Your task to perform on an android device: open app "Cash App" Image 0: 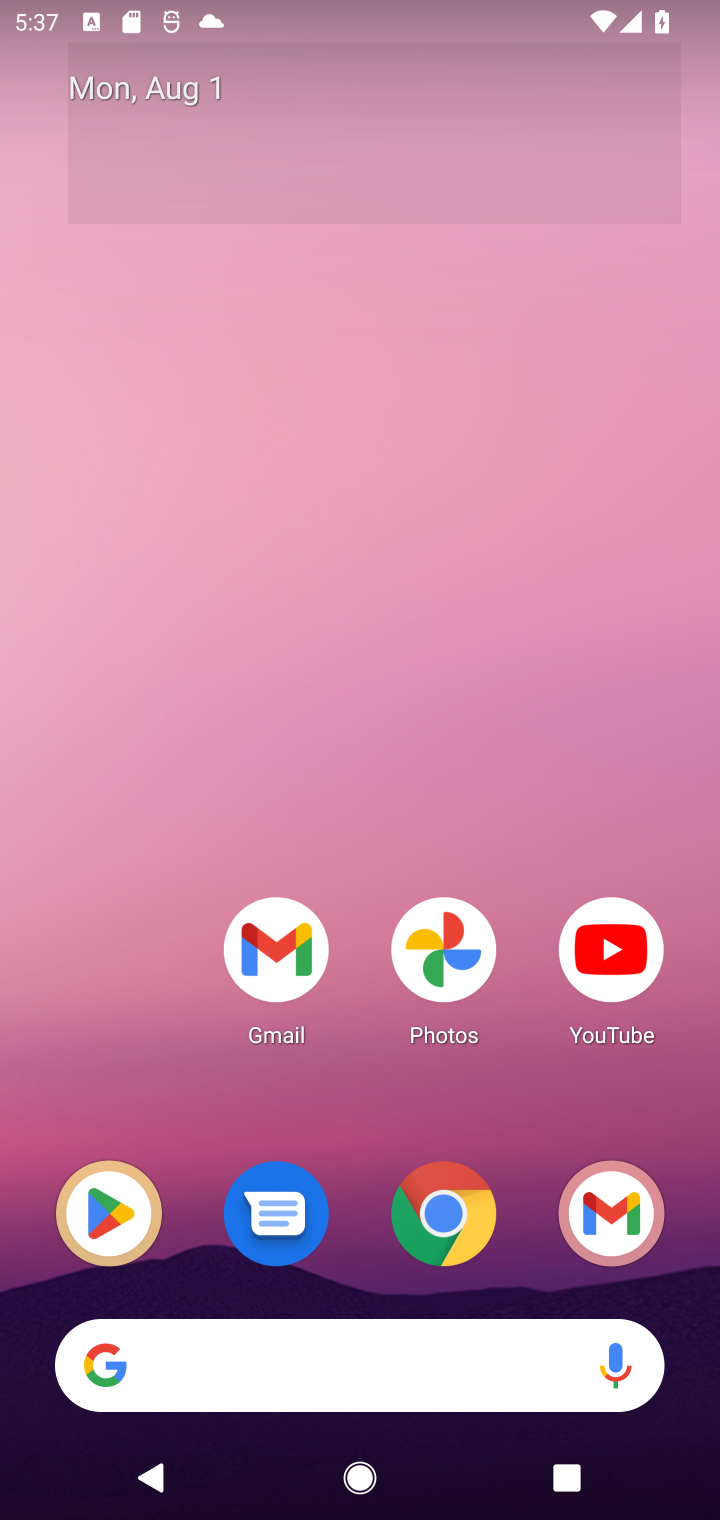
Step 0: press home button
Your task to perform on an android device: open app "Cash App" Image 1: 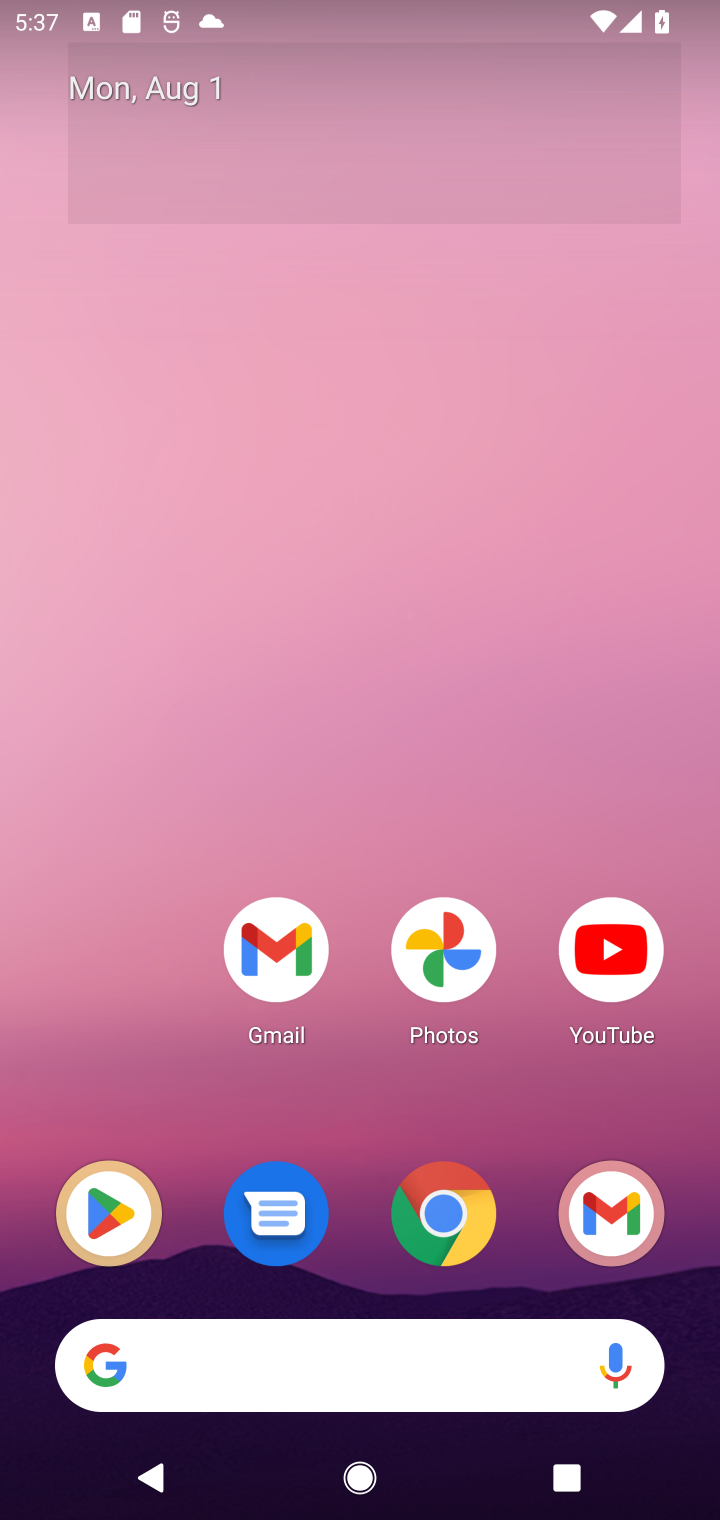
Step 1: drag from (519, 1044) to (566, 12)
Your task to perform on an android device: open app "Cash App" Image 2: 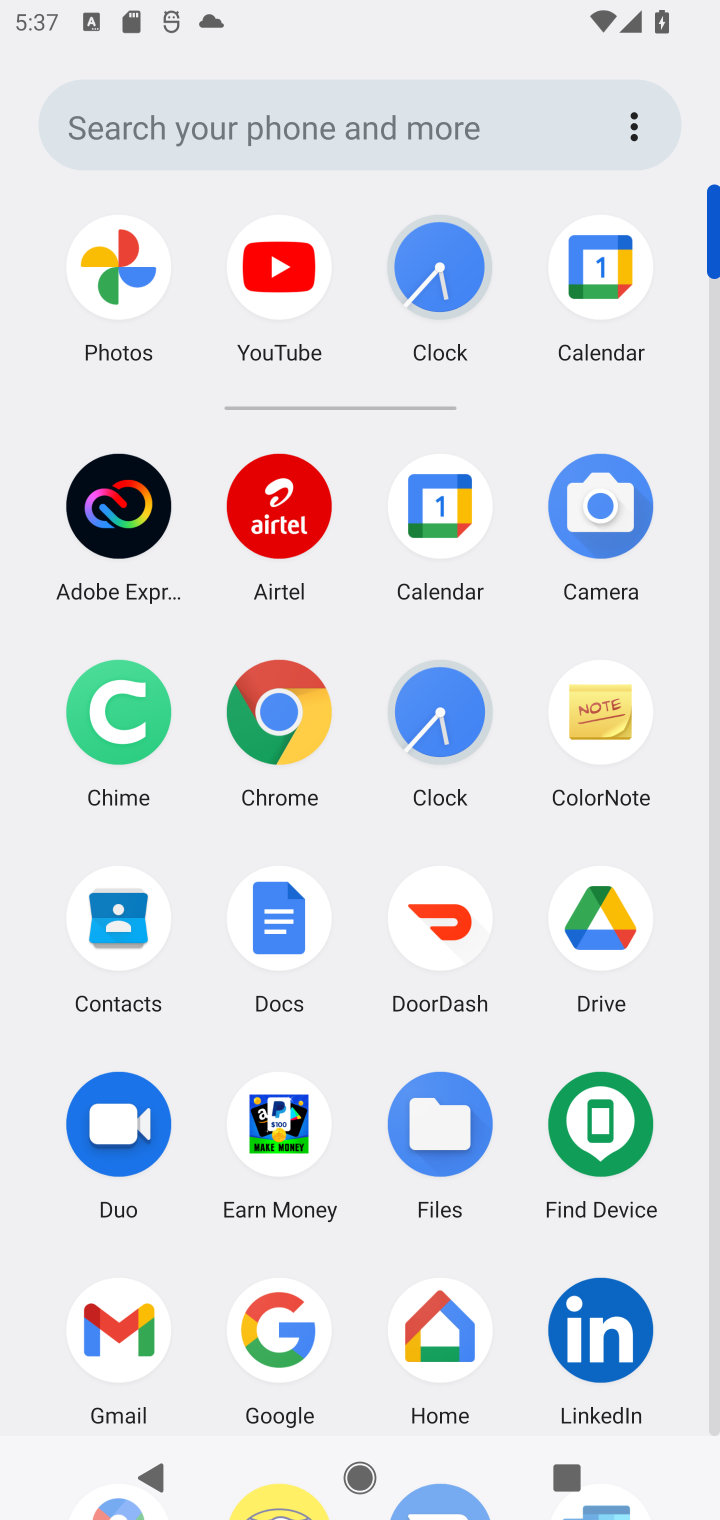
Step 2: drag from (524, 1026) to (529, 288)
Your task to perform on an android device: open app "Cash App" Image 3: 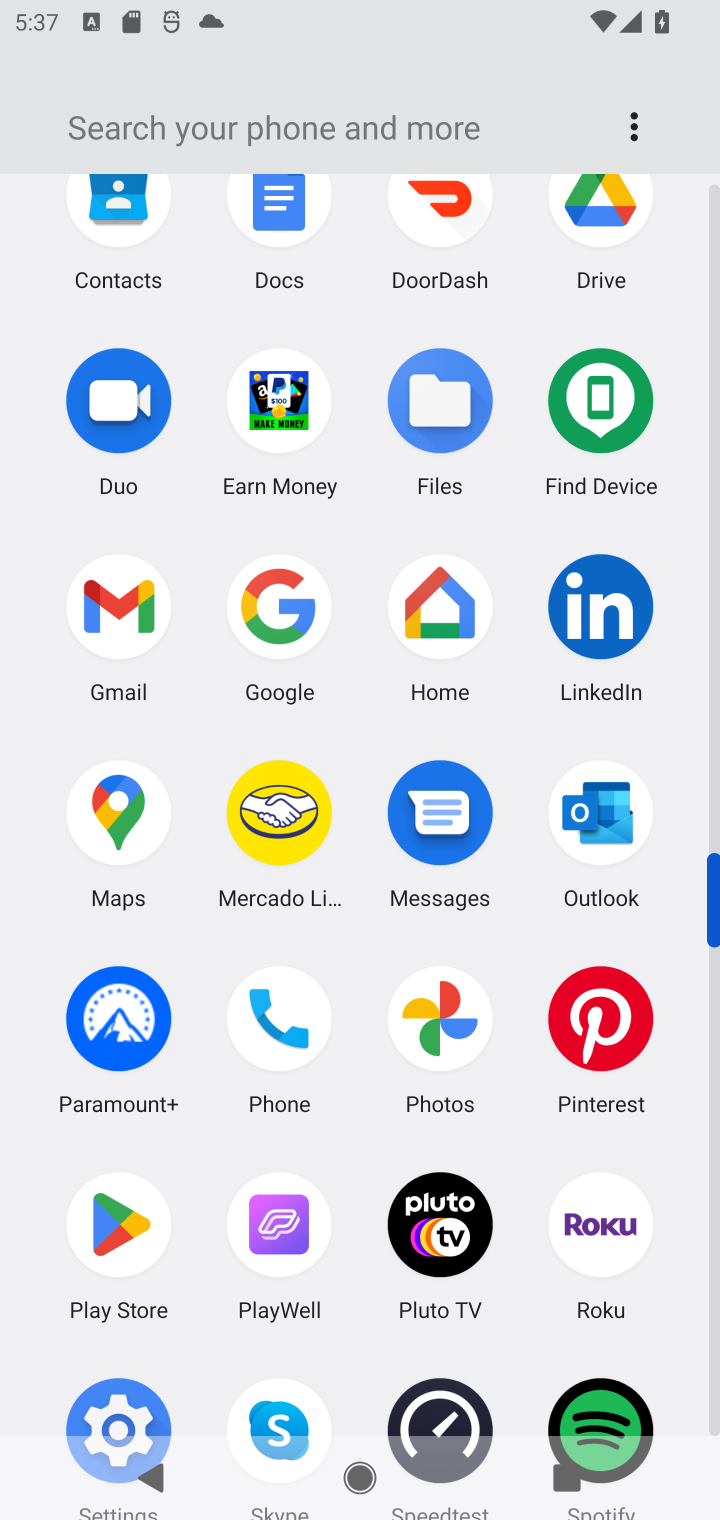
Step 3: click (121, 1233)
Your task to perform on an android device: open app "Cash App" Image 4: 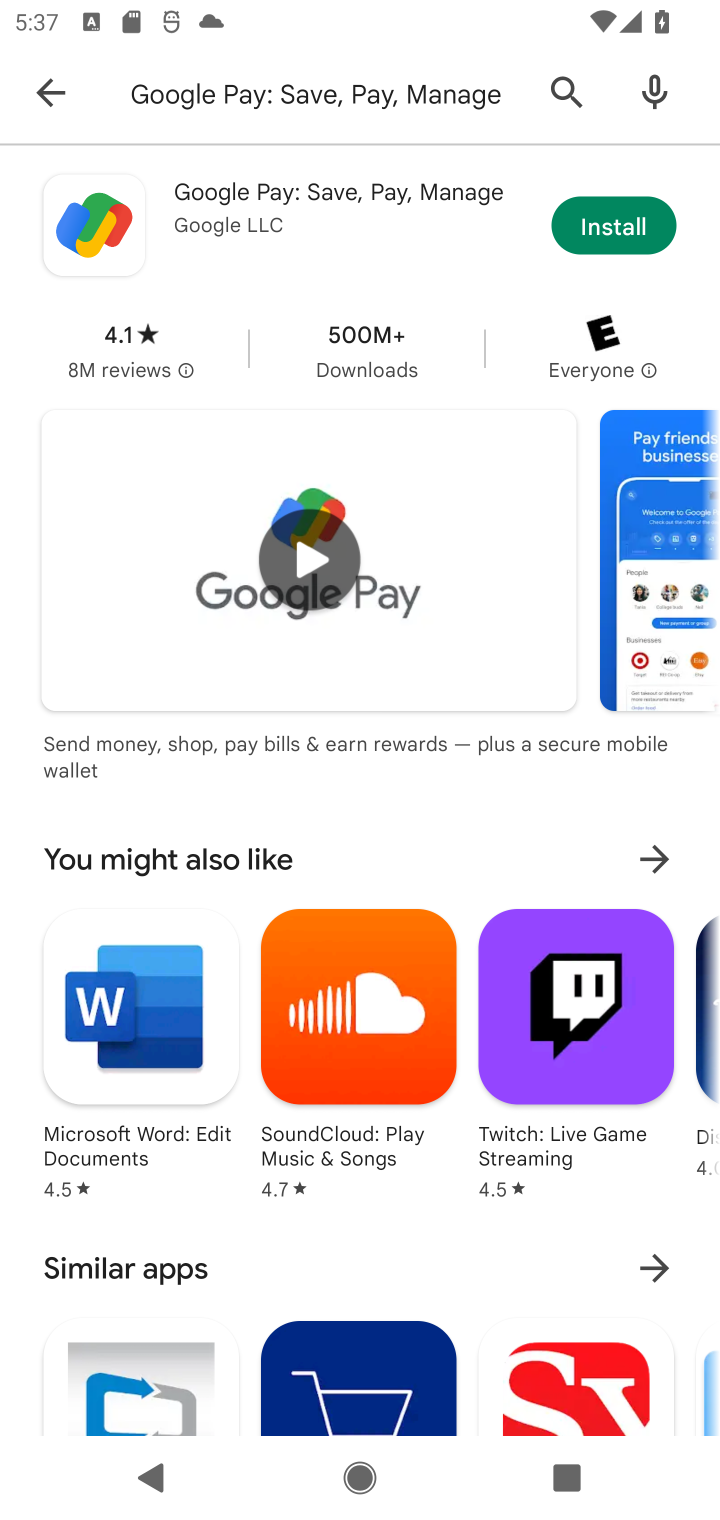
Step 4: click (416, 103)
Your task to perform on an android device: open app "Cash App" Image 5: 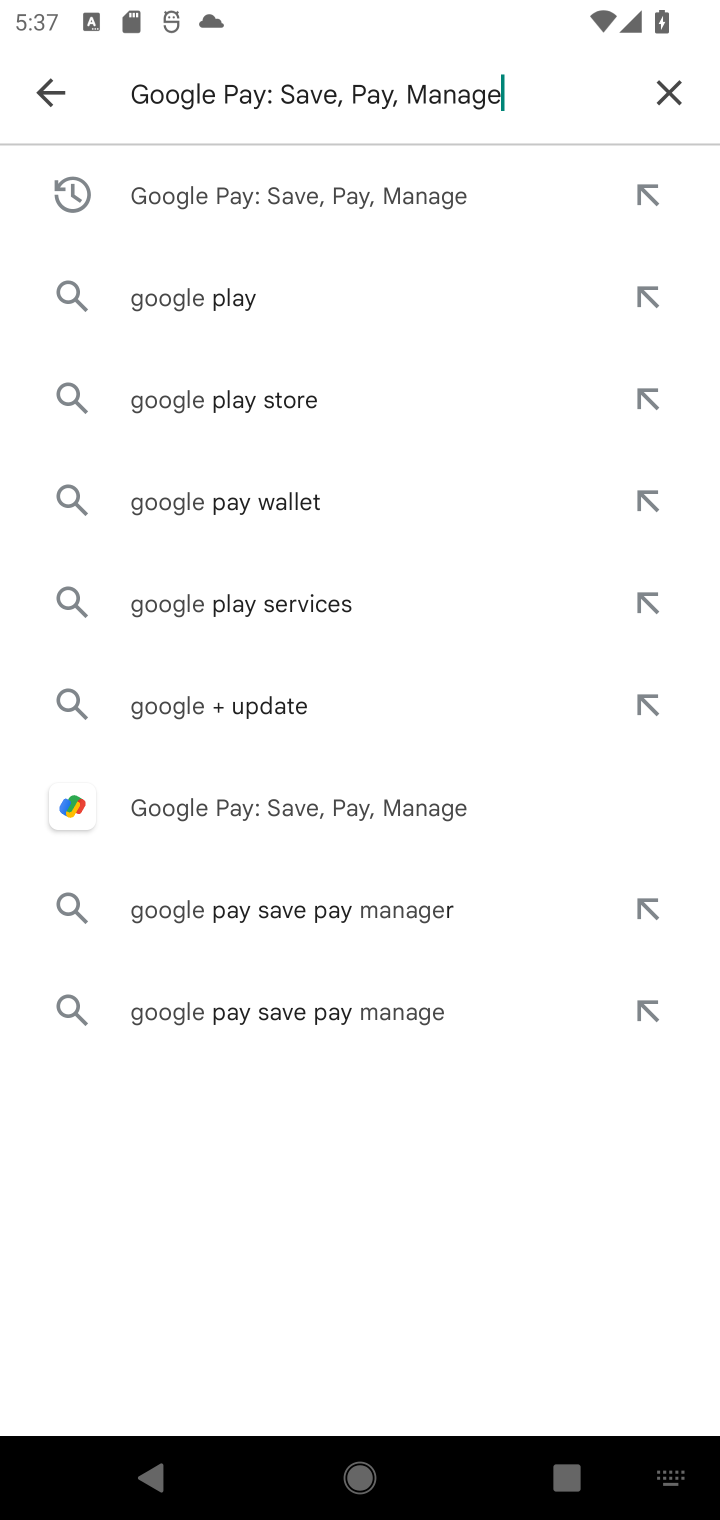
Step 5: click (660, 86)
Your task to perform on an android device: open app "Cash App" Image 6: 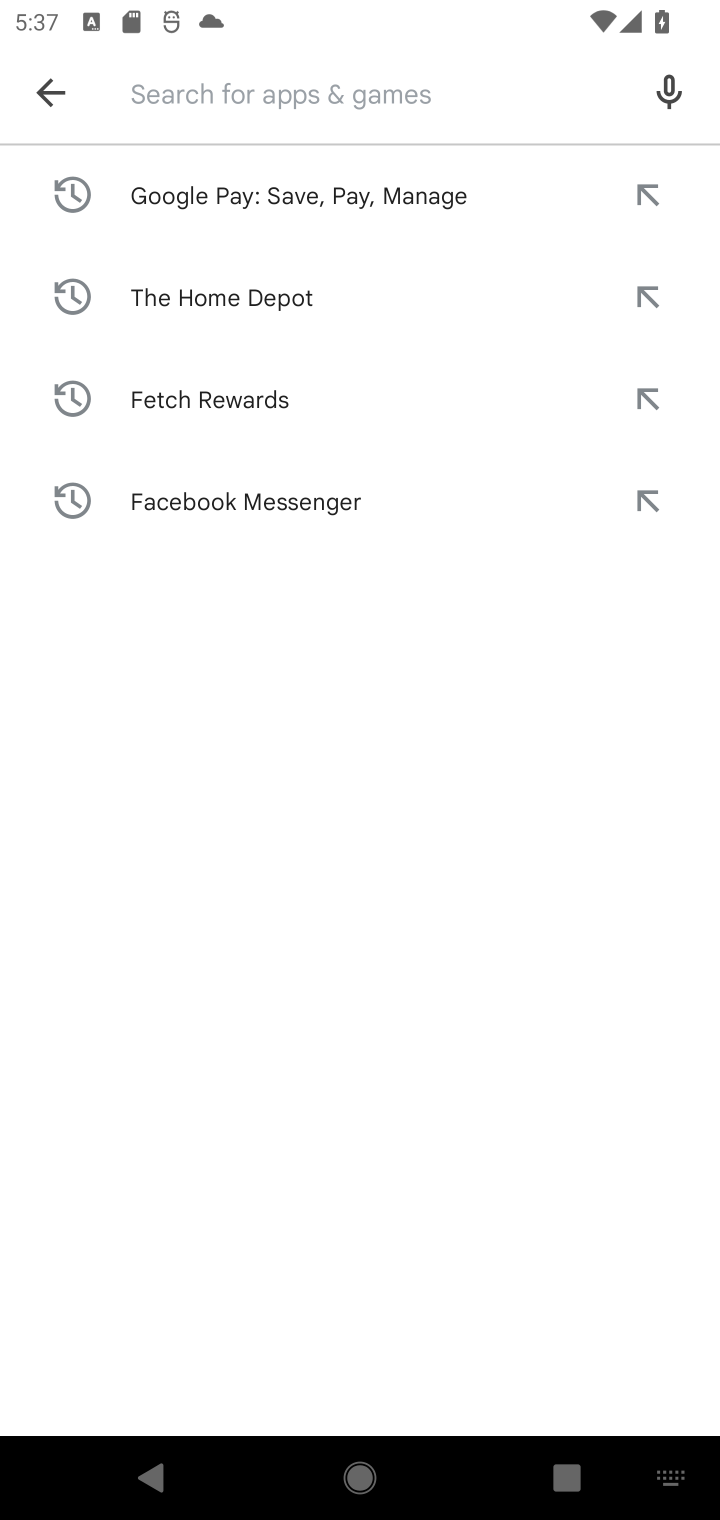
Step 6: type "Cash App"
Your task to perform on an android device: open app "Cash App" Image 7: 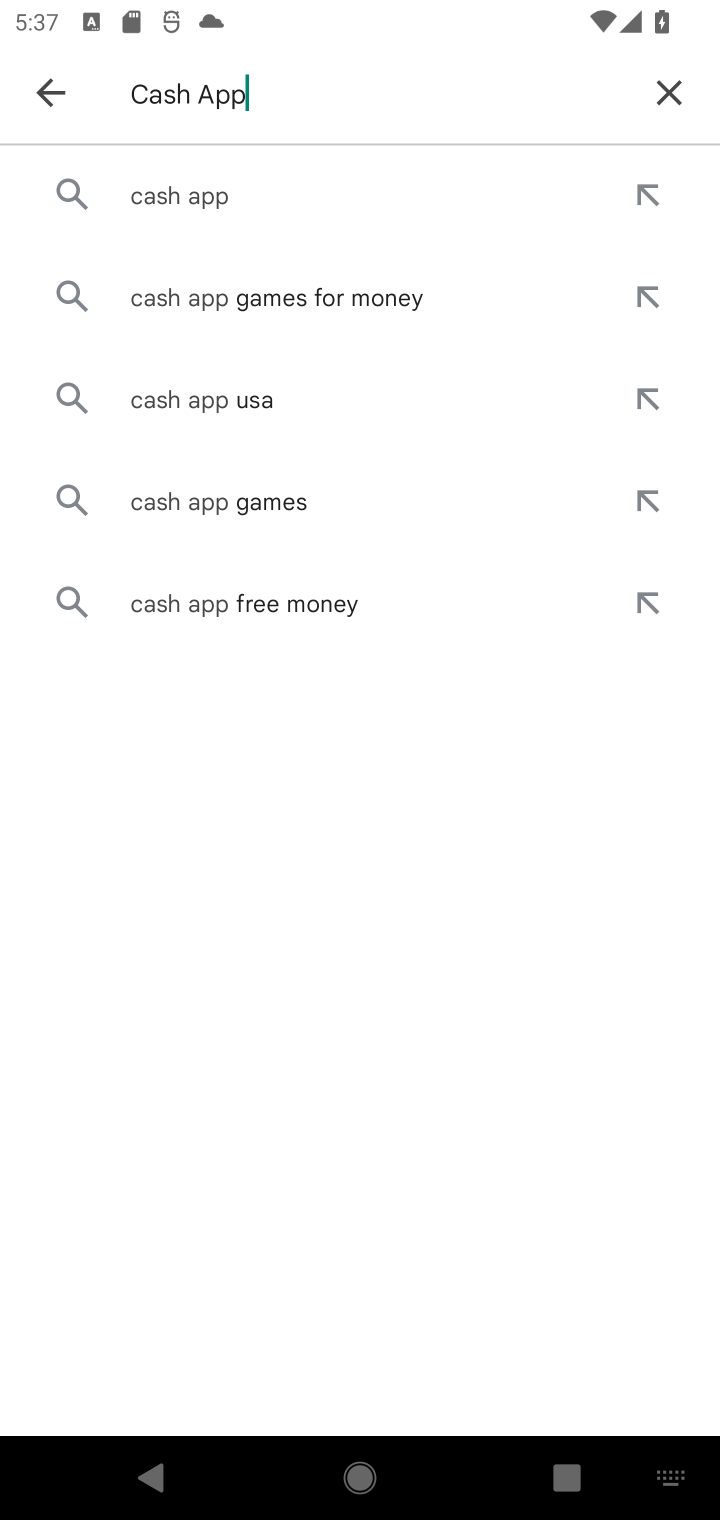
Step 7: press enter
Your task to perform on an android device: open app "Cash App" Image 8: 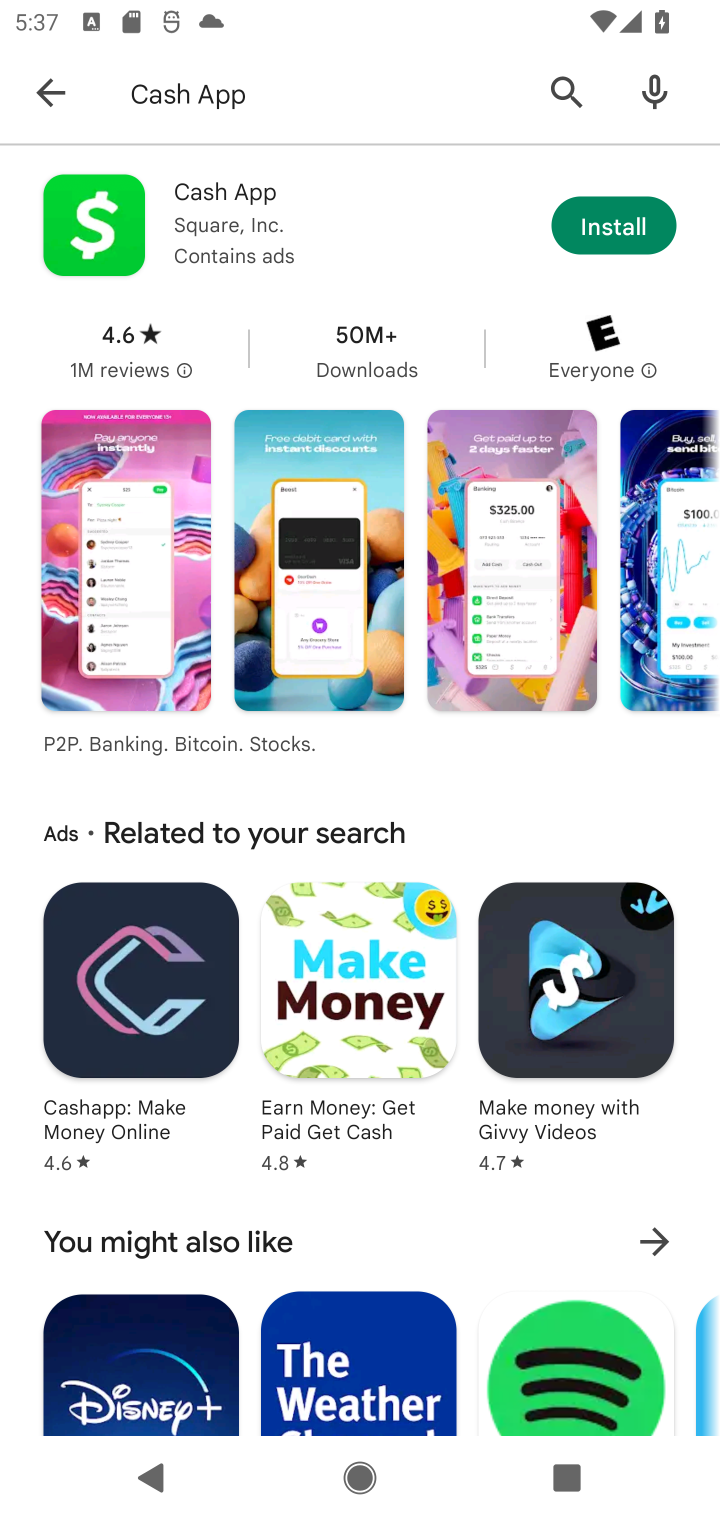
Step 8: task complete